Your task to perform on an android device: show emergency info Image 0: 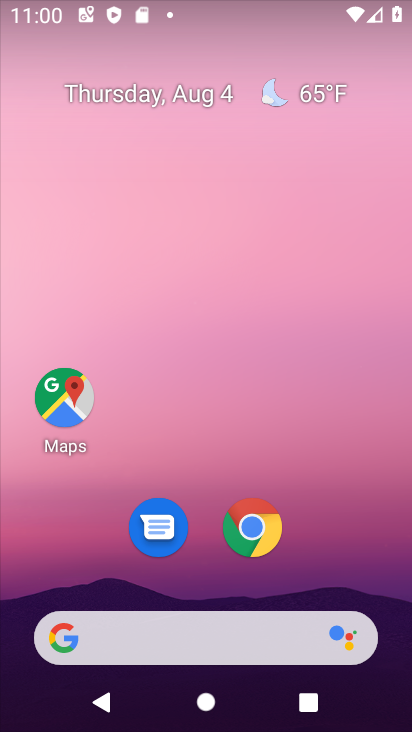
Step 0: click (237, 10)
Your task to perform on an android device: show emergency info Image 1: 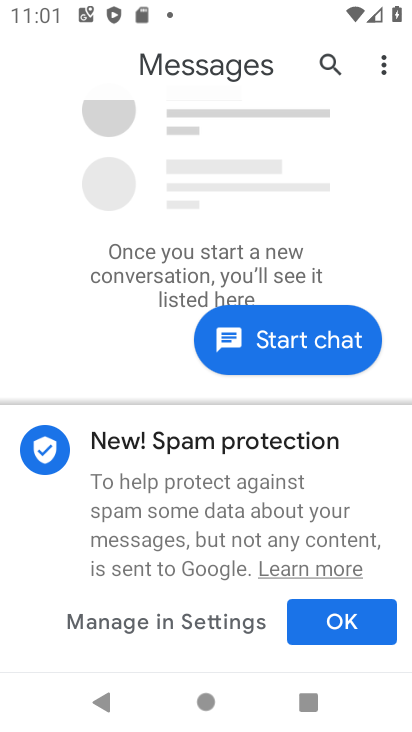
Step 1: press home button
Your task to perform on an android device: show emergency info Image 2: 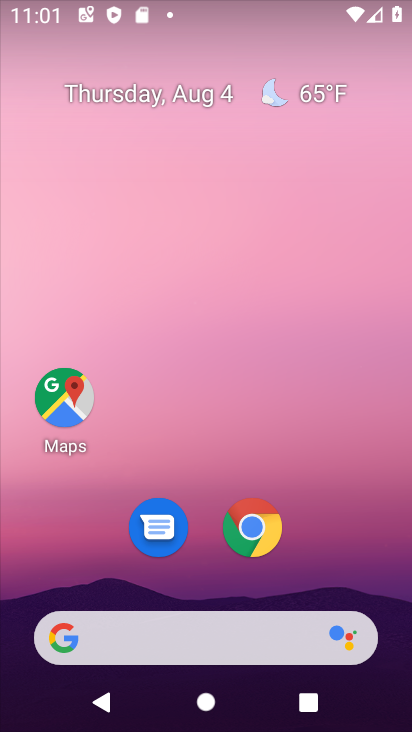
Step 2: drag from (245, 661) to (261, 116)
Your task to perform on an android device: show emergency info Image 3: 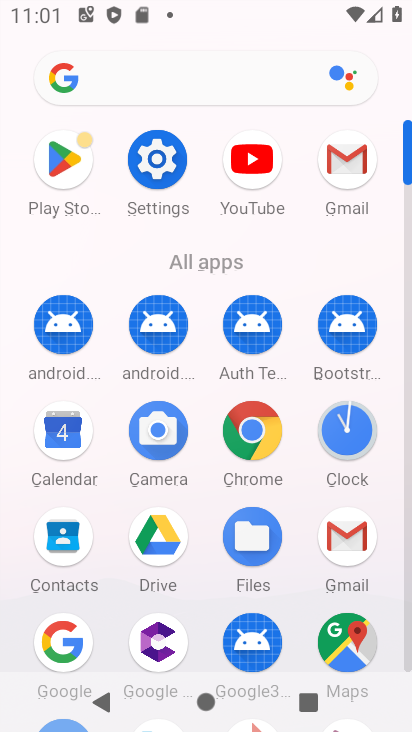
Step 3: click (152, 158)
Your task to perform on an android device: show emergency info Image 4: 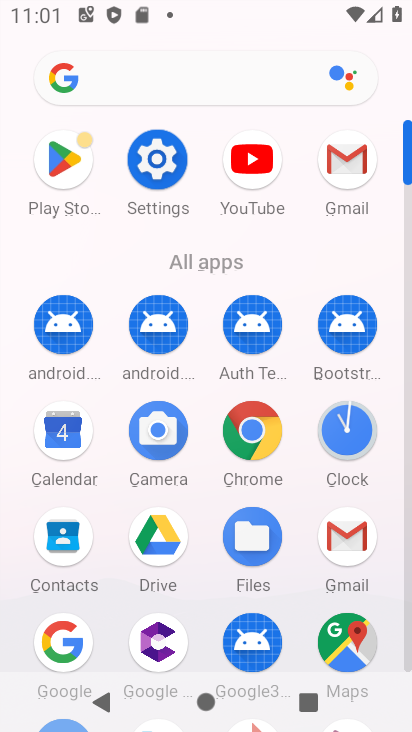
Step 4: click (152, 158)
Your task to perform on an android device: show emergency info Image 5: 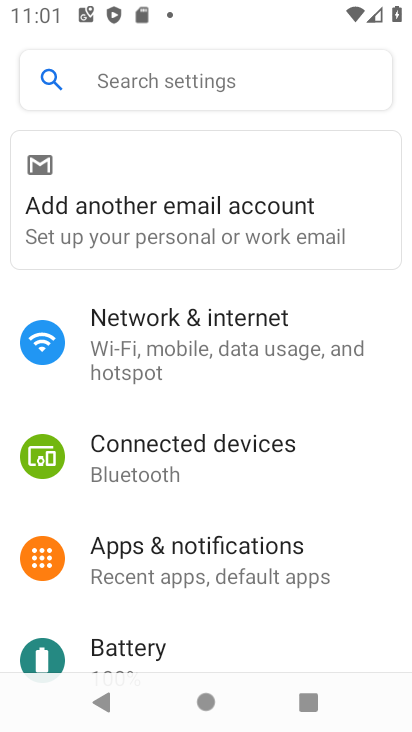
Step 5: drag from (247, 577) to (215, 42)
Your task to perform on an android device: show emergency info Image 6: 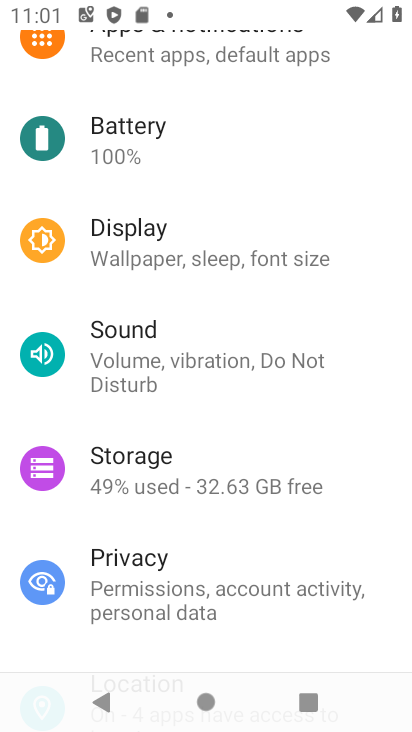
Step 6: drag from (227, 556) to (230, 58)
Your task to perform on an android device: show emergency info Image 7: 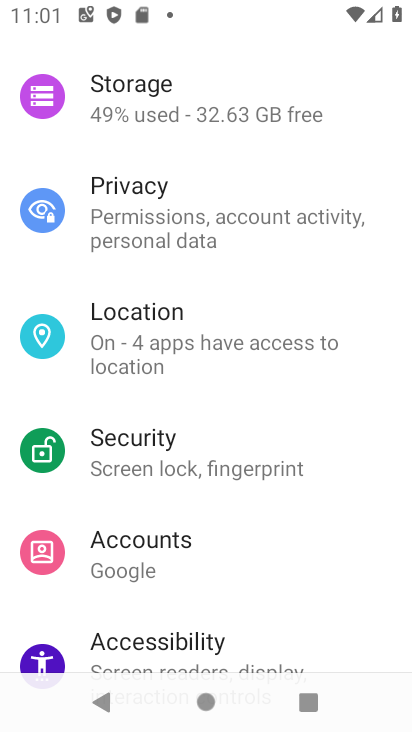
Step 7: drag from (260, 545) to (392, 371)
Your task to perform on an android device: show emergency info Image 8: 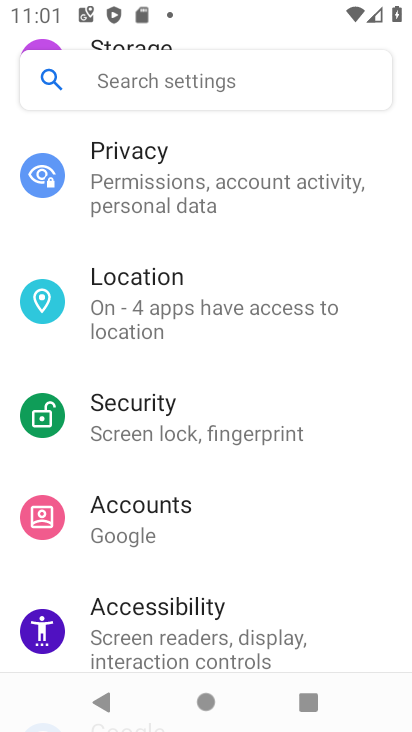
Step 8: drag from (336, 470) to (341, 30)
Your task to perform on an android device: show emergency info Image 9: 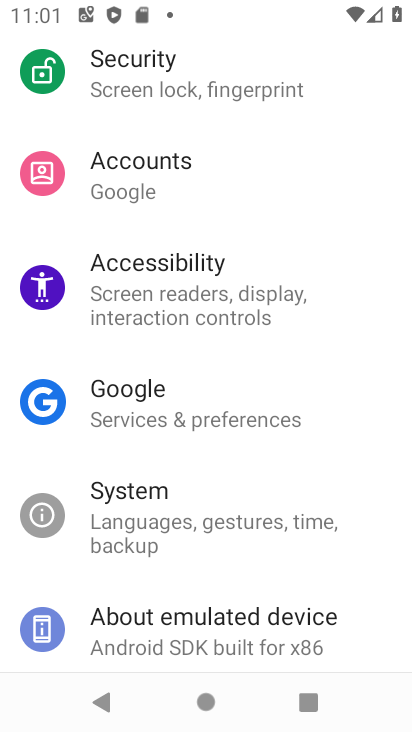
Step 9: click (243, 646)
Your task to perform on an android device: show emergency info Image 10: 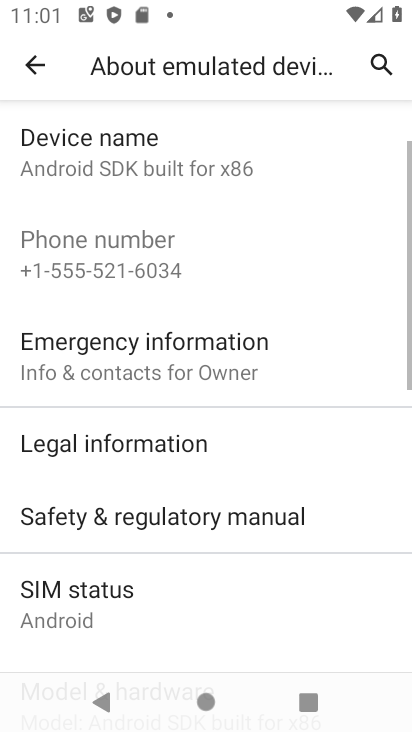
Step 10: click (192, 345)
Your task to perform on an android device: show emergency info Image 11: 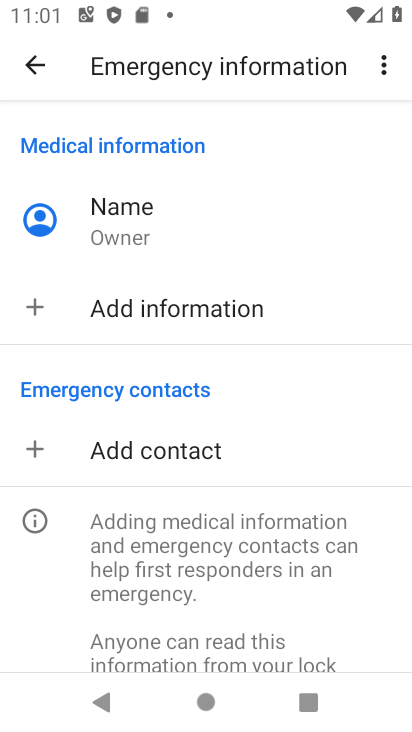
Step 11: task complete